Your task to perform on an android device: Open Wikipedia Image 0: 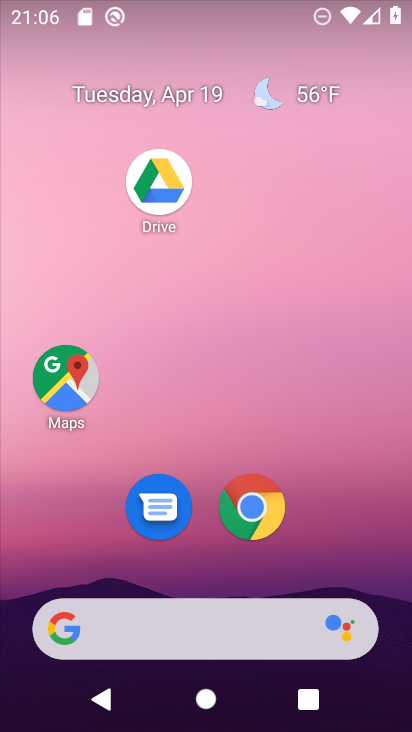
Step 0: click (243, 623)
Your task to perform on an android device: Open Wikipedia Image 1: 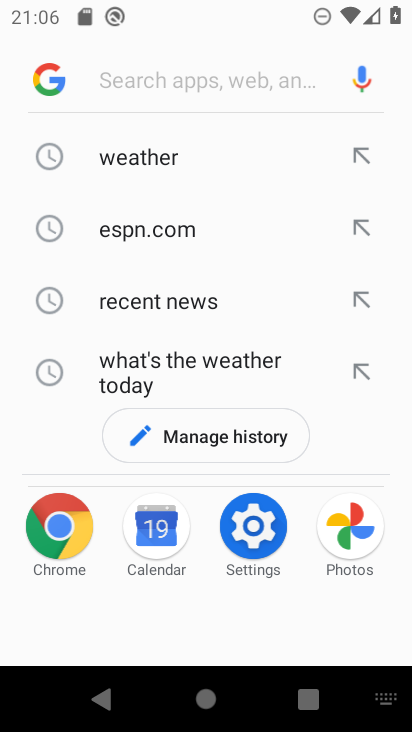
Step 1: type "Wikipedia"
Your task to perform on an android device: Open Wikipedia Image 2: 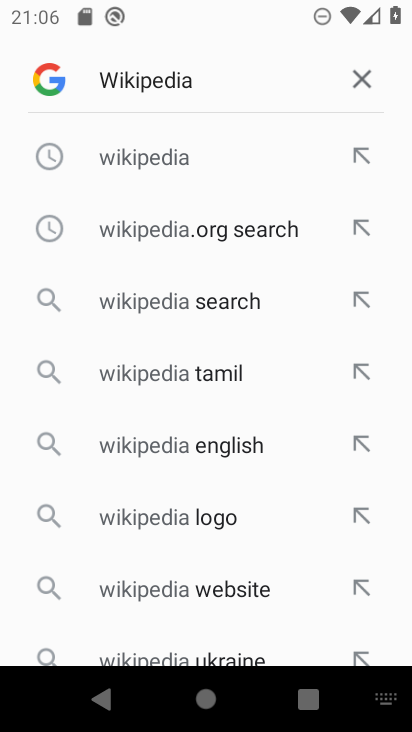
Step 2: click (172, 155)
Your task to perform on an android device: Open Wikipedia Image 3: 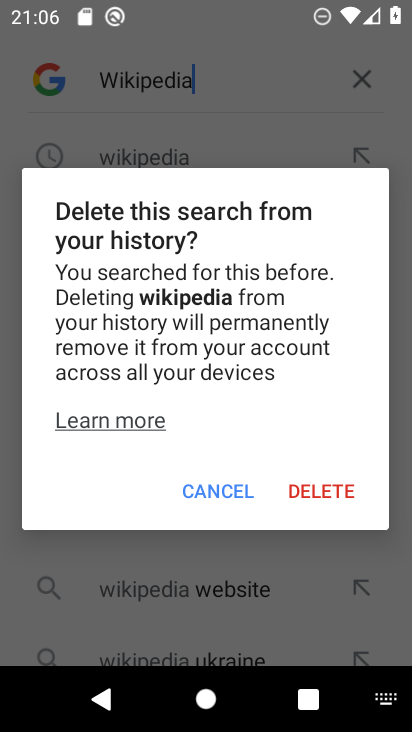
Step 3: click (240, 489)
Your task to perform on an android device: Open Wikipedia Image 4: 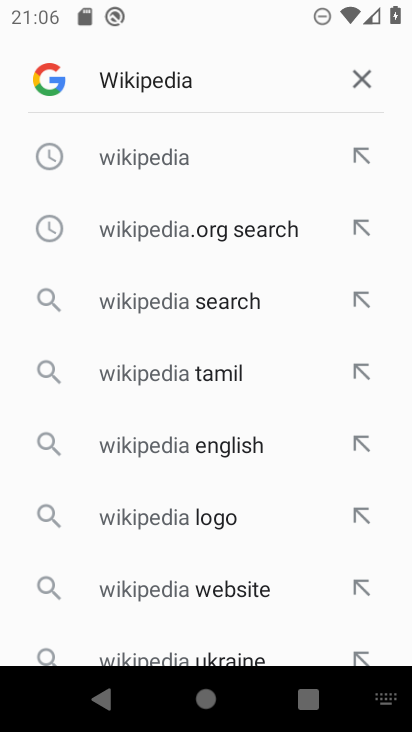
Step 4: click (147, 158)
Your task to perform on an android device: Open Wikipedia Image 5: 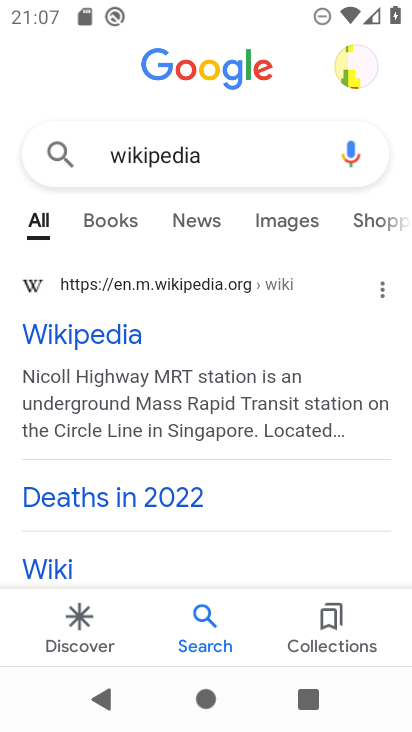
Step 5: click (130, 332)
Your task to perform on an android device: Open Wikipedia Image 6: 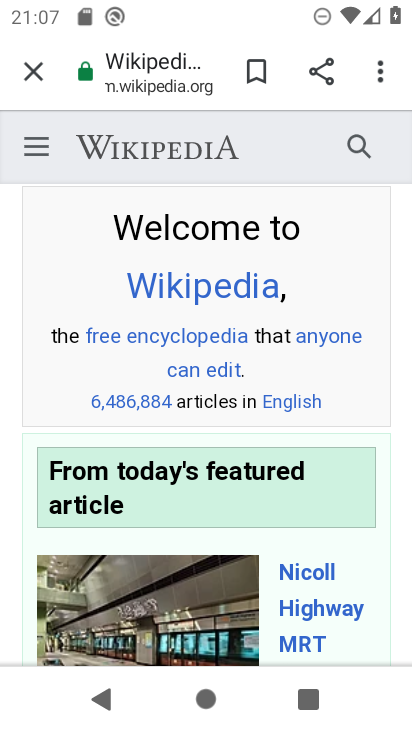
Step 6: task complete